Your task to perform on an android device: Open Chrome and go to settings Image 0: 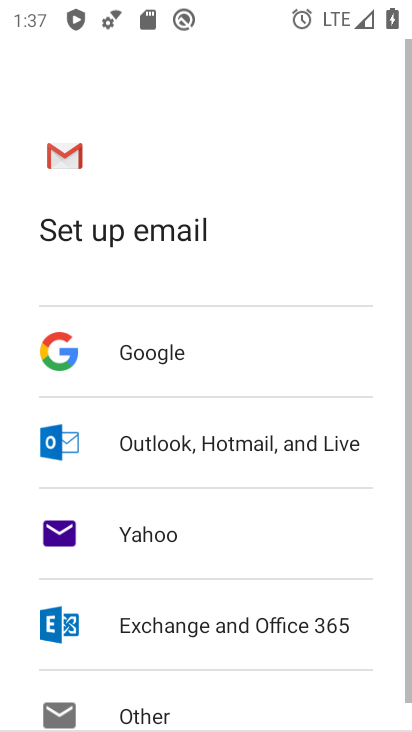
Step 0: press home button
Your task to perform on an android device: Open Chrome and go to settings Image 1: 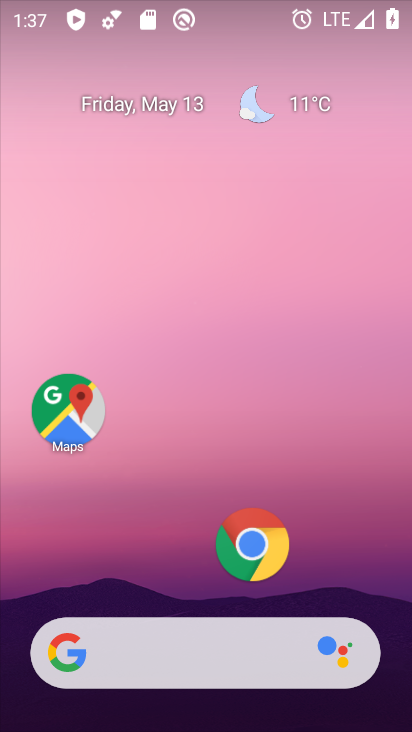
Step 1: drag from (149, 595) to (216, 228)
Your task to perform on an android device: Open Chrome and go to settings Image 2: 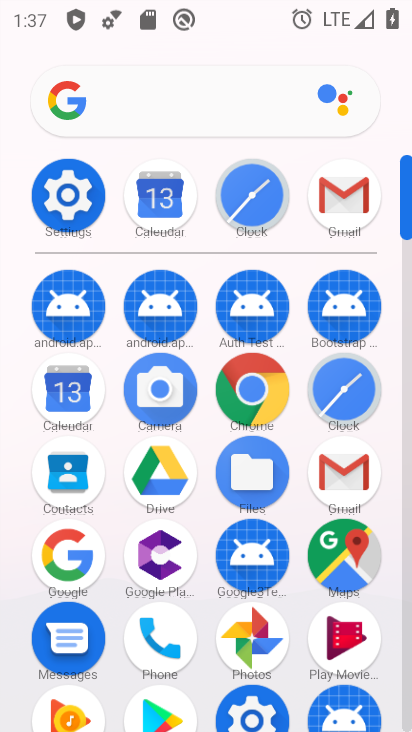
Step 2: click (247, 704)
Your task to perform on an android device: Open Chrome and go to settings Image 3: 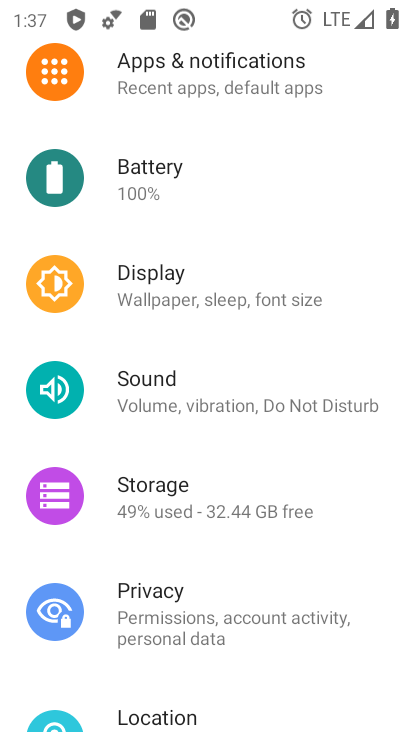
Step 3: press home button
Your task to perform on an android device: Open Chrome and go to settings Image 4: 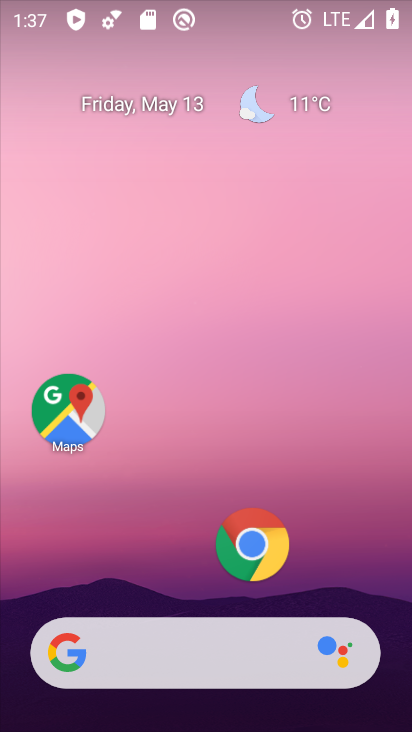
Step 4: click (255, 549)
Your task to perform on an android device: Open Chrome and go to settings Image 5: 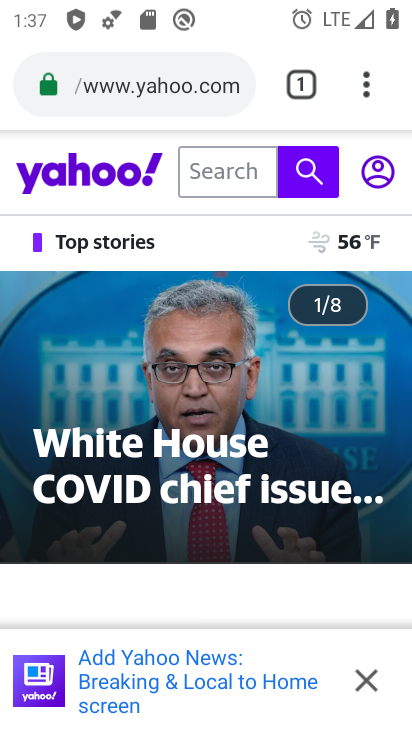
Step 5: click (367, 90)
Your task to perform on an android device: Open Chrome and go to settings Image 6: 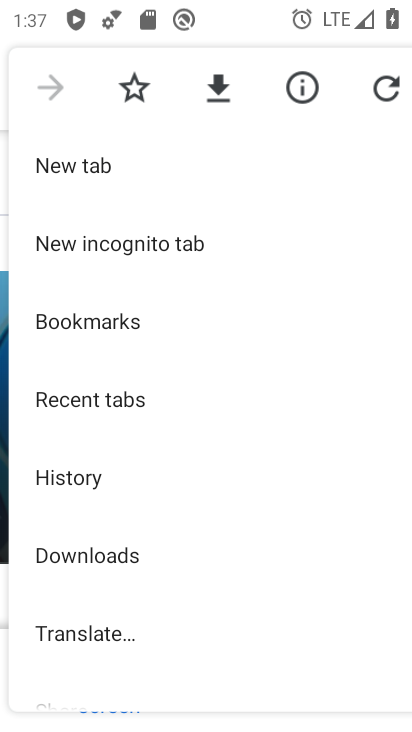
Step 6: drag from (72, 585) to (229, 142)
Your task to perform on an android device: Open Chrome and go to settings Image 7: 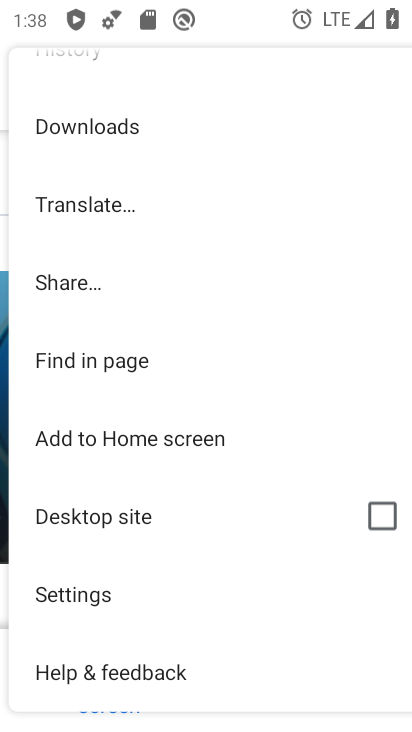
Step 7: click (87, 590)
Your task to perform on an android device: Open Chrome and go to settings Image 8: 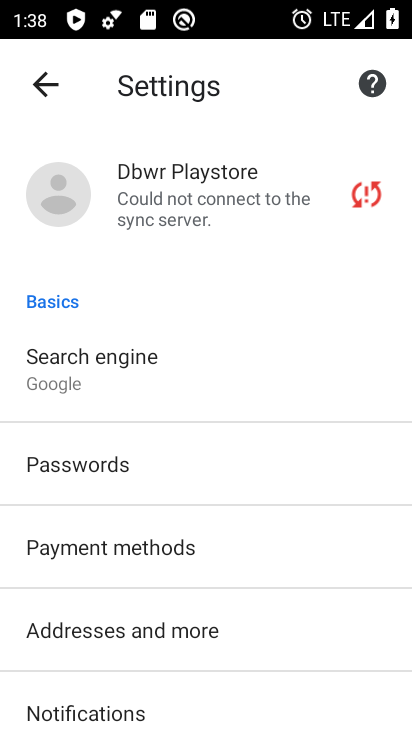
Step 8: task complete